Your task to perform on an android device: turn off notifications in google photos Image 0: 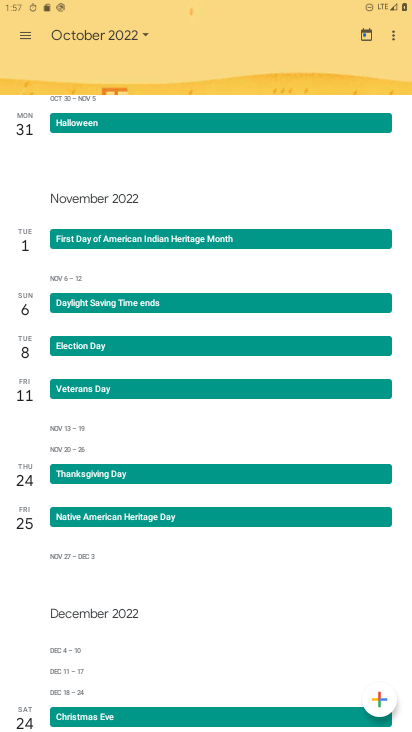
Step 0: press home button
Your task to perform on an android device: turn off notifications in google photos Image 1: 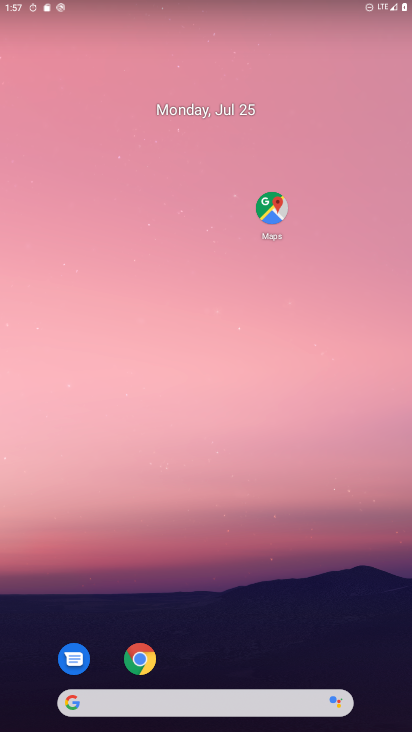
Step 1: drag from (46, 614) to (150, 289)
Your task to perform on an android device: turn off notifications in google photos Image 2: 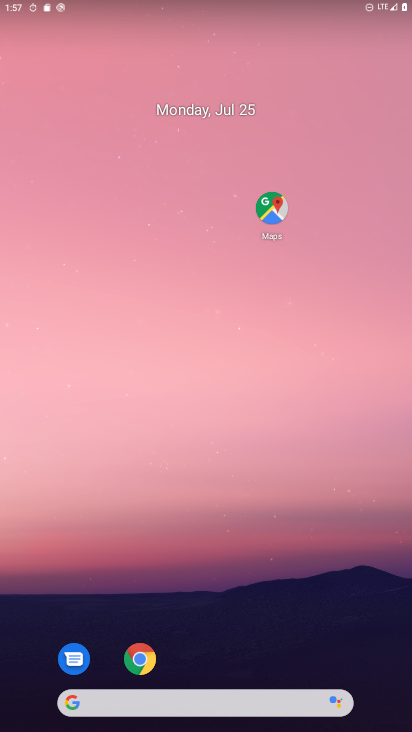
Step 2: drag from (52, 684) to (305, 17)
Your task to perform on an android device: turn off notifications in google photos Image 3: 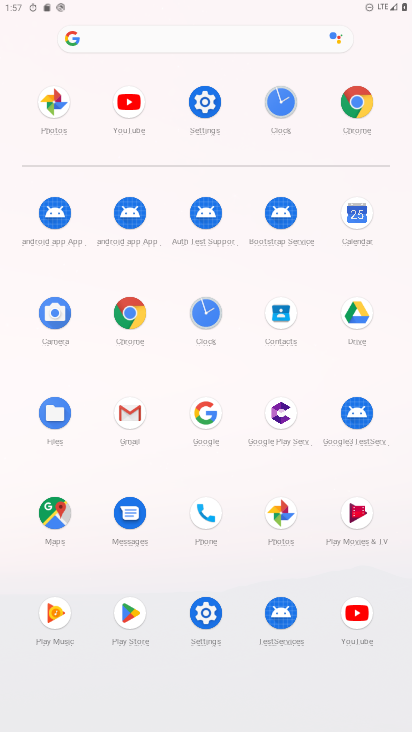
Step 3: click (271, 504)
Your task to perform on an android device: turn off notifications in google photos Image 4: 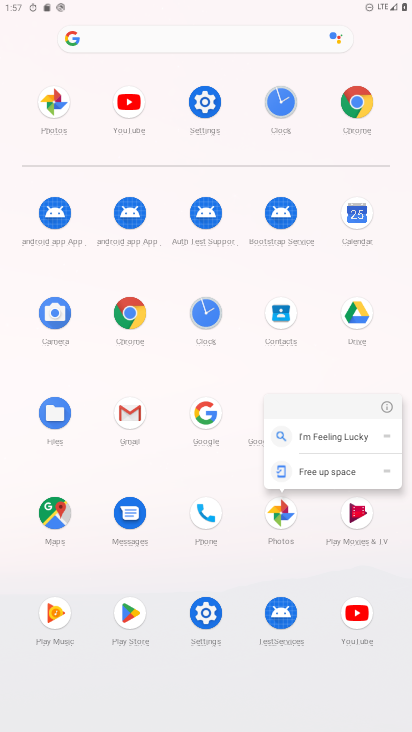
Step 4: click (284, 517)
Your task to perform on an android device: turn off notifications in google photos Image 5: 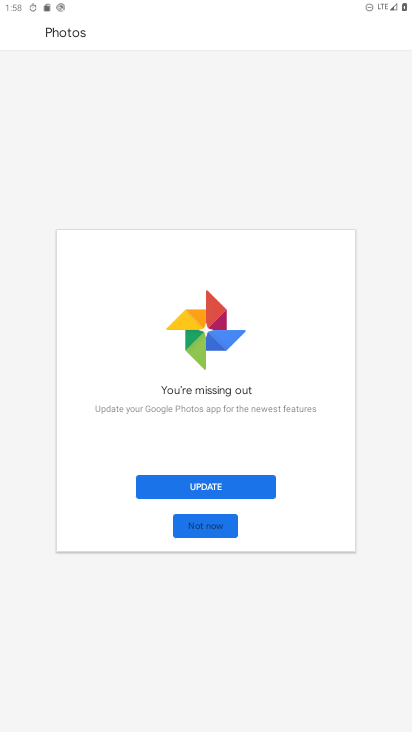
Step 5: click (207, 517)
Your task to perform on an android device: turn off notifications in google photos Image 6: 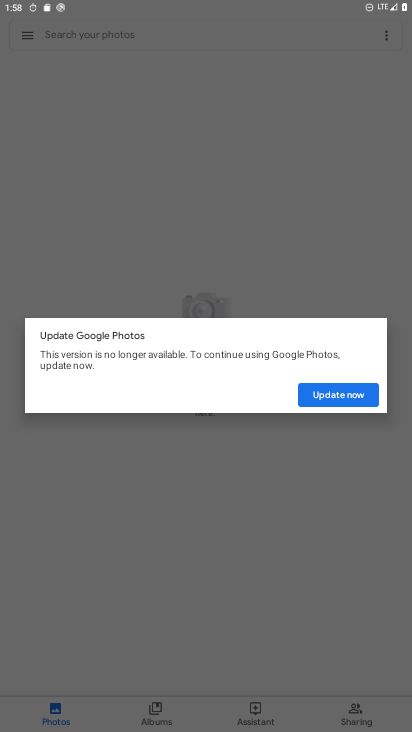
Step 6: click (312, 435)
Your task to perform on an android device: turn off notifications in google photos Image 7: 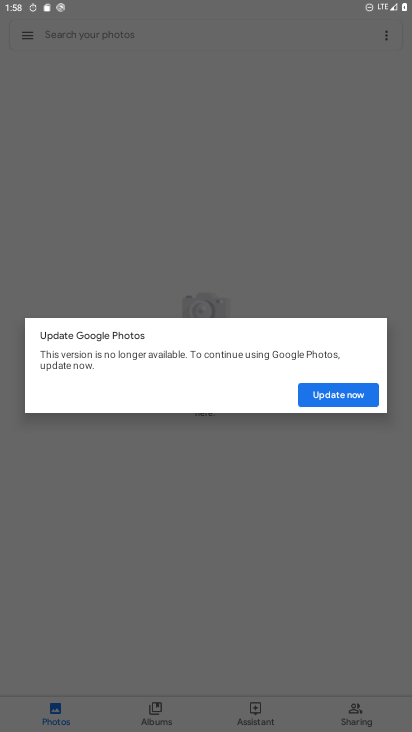
Step 7: task complete